Your task to perform on an android device: Go to accessibility settings Image 0: 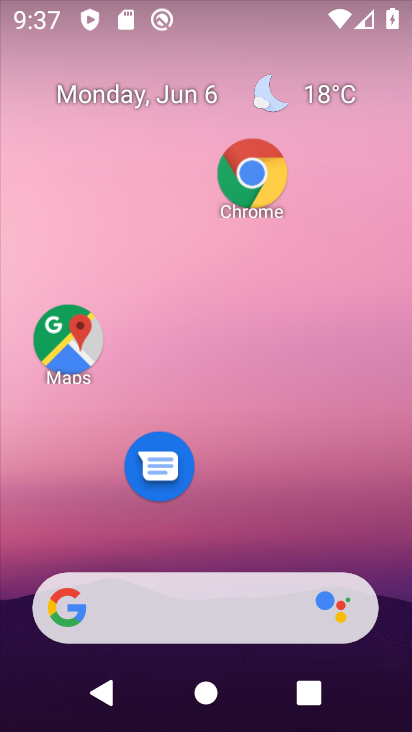
Step 0: drag from (206, 546) to (148, 4)
Your task to perform on an android device: Go to accessibility settings Image 1: 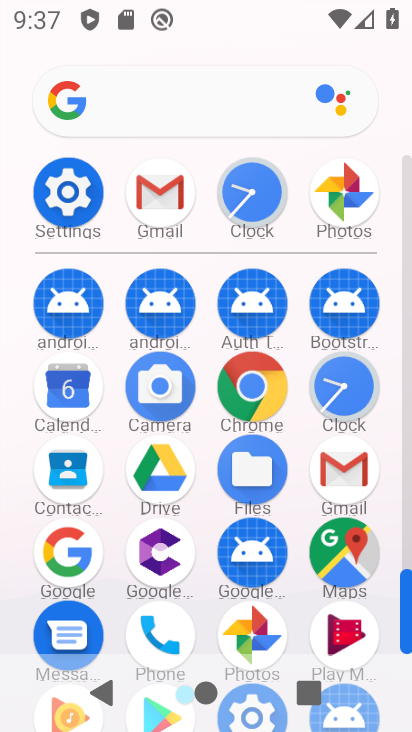
Step 1: click (54, 199)
Your task to perform on an android device: Go to accessibility settings Image 2: 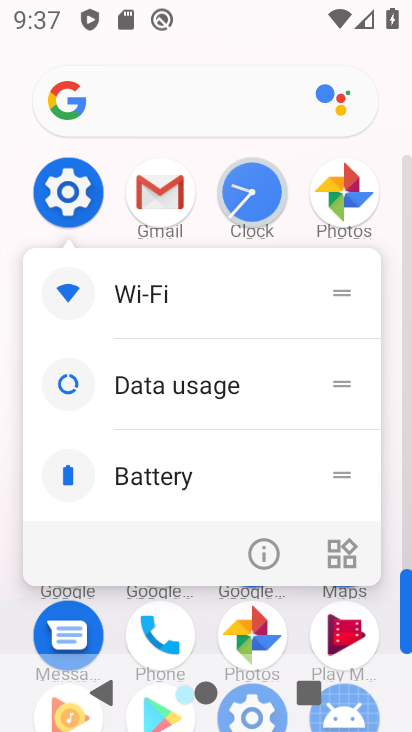
Step 2: click (67, 192)
Your task to perform on an android device: Go to accessibility settings Image 3: 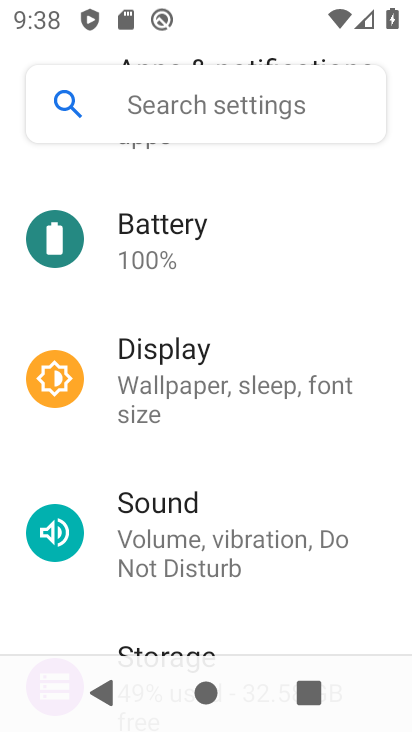
Step 3: drag from (266, 592) to (265, 124)
Your task to perform on an android device: Go to accessibility settings Image 4: 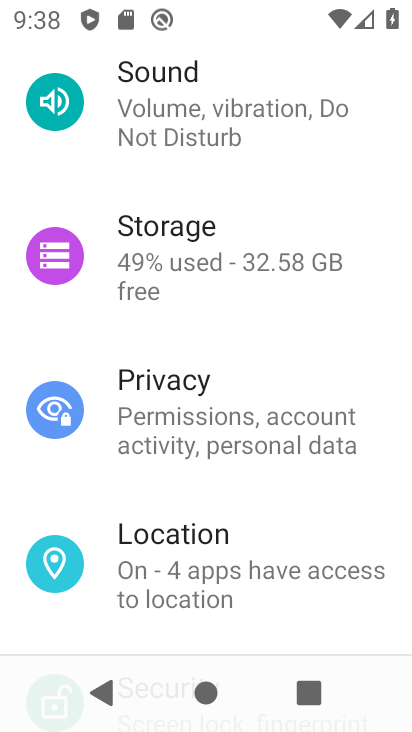
Step 4: drag from (224, 566) to (293, 125)
Your task to perform on an android device: Go to accessibility settings Image 5: 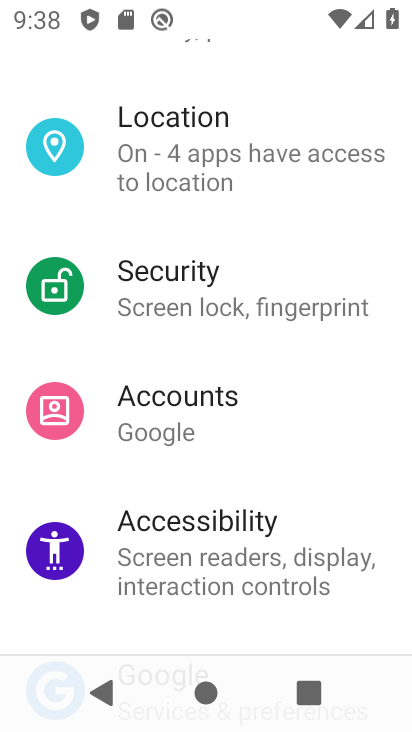
Step 5: click (239, 555)
Your task to perform on an android device: Go to accessibility settings Image 6: 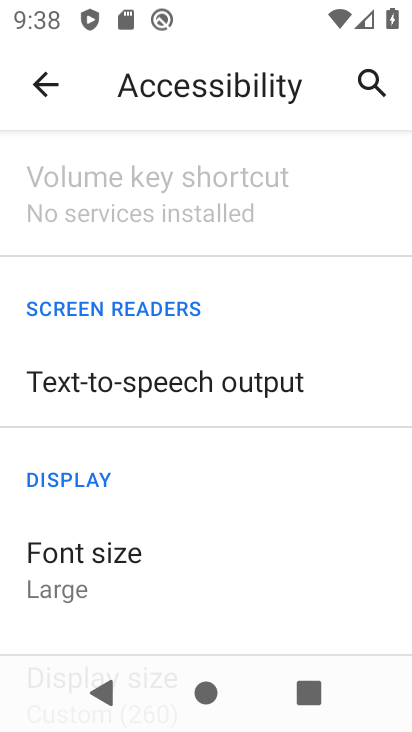
Step 6: task complete